Your task to perform on an android device: Go to Yahoo.com Image 0: 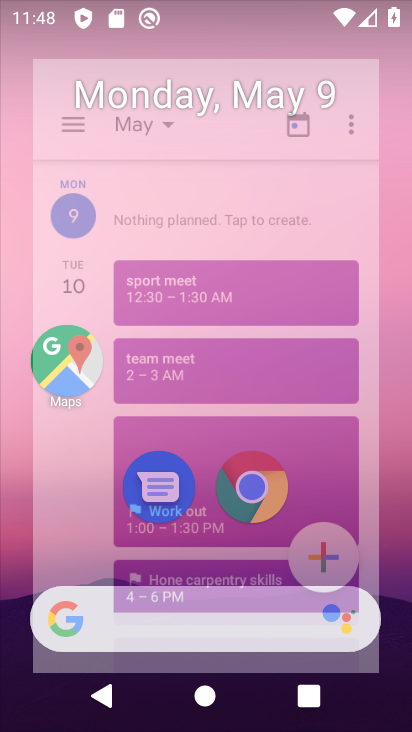
Step 0: drag from (341, 548) to (327, 314)
Your task to perform on an android device: Go to Yahoo.com Image 1: 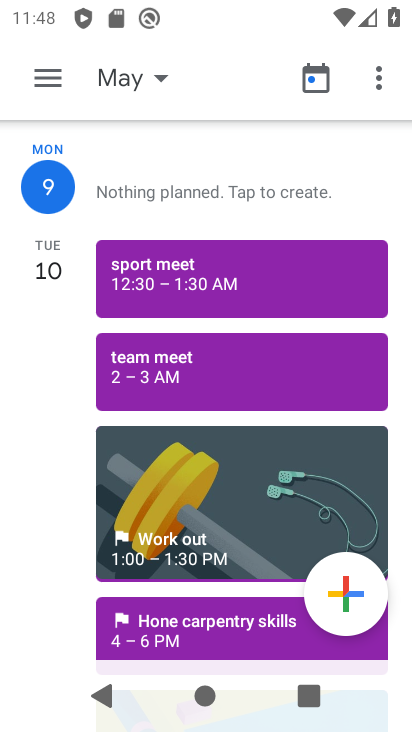
Step 1: press home button
Your task to perform on an android device: Go to Yahoo.com Image 2: 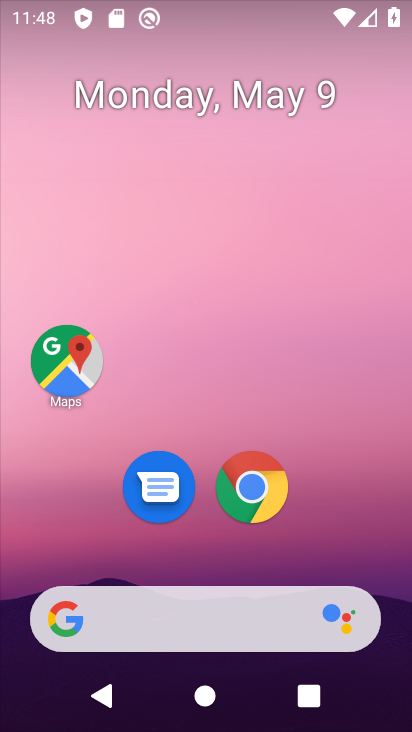
Step 2: drag from (353, 503) to (355, 130)
Your task to perform on an android device: Go to Yahoo.com Image 3: 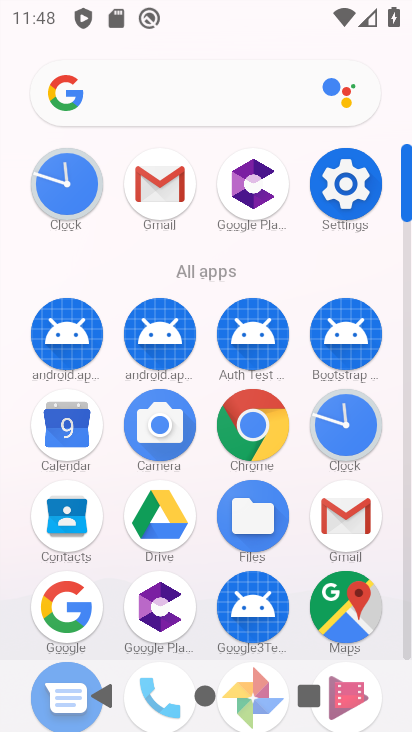
Step 3: click (245, 440)
Your task to perform on an android device: Go to Yahoo.com Image 4: 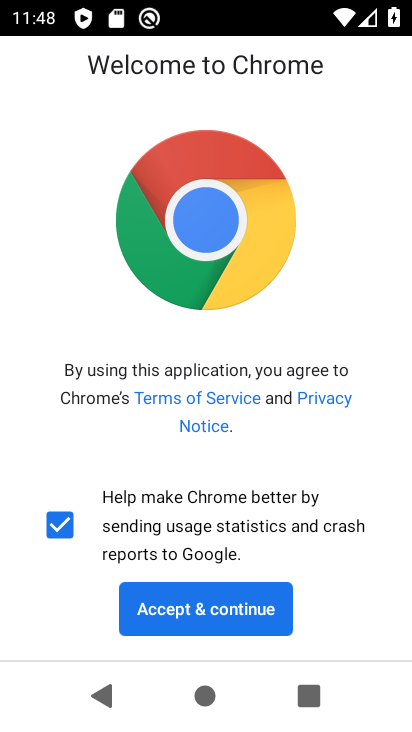
Step 4: click (219, 618)
Your task to perform on an android device: Go to Yahoo.com Image 5: 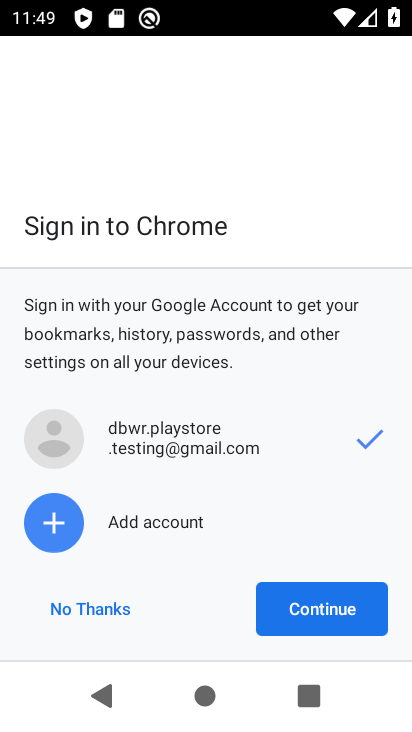
Step 5: click (342, 608)
Your task to perform on an android device: Go to Yahoo.com Image 6: 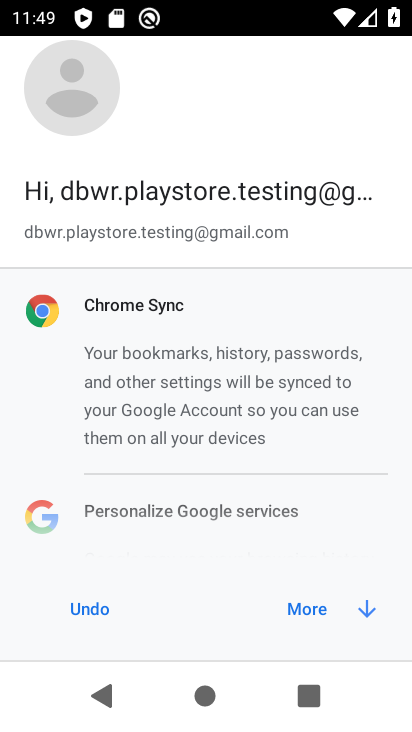
Step 6: click (342, 608)
Your task to perform on an android device: Go to Yahoo.com Image 7: 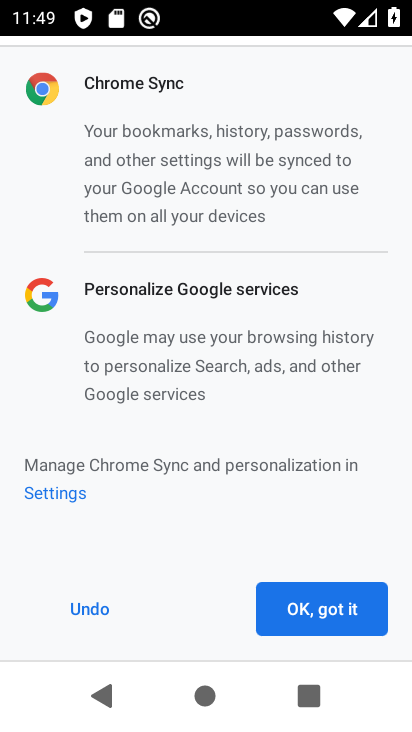
Step 7: click (342, 608)
Your task to perform on an android device: Go to Yahoo.com Image 8: 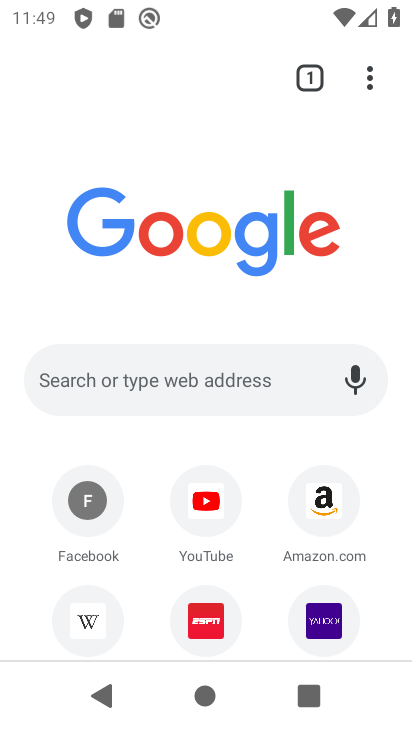
Step 8: click (328, 609)
Your task to perform on an android device: Go to Yahoo.com Image 9: 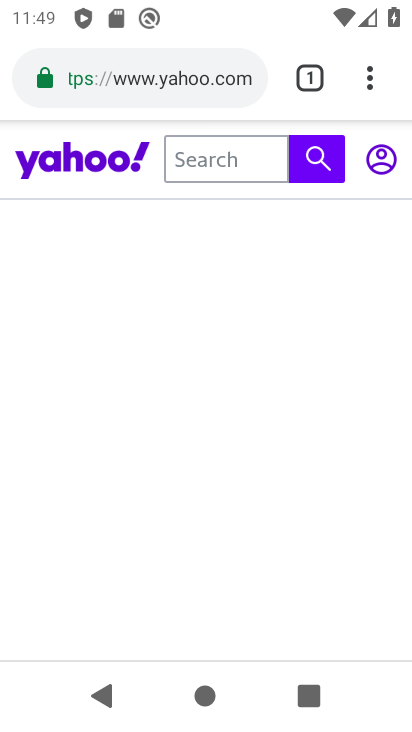
Step 9: task complete